Your task to perform on an android device: change the clock display to digital Image 0: 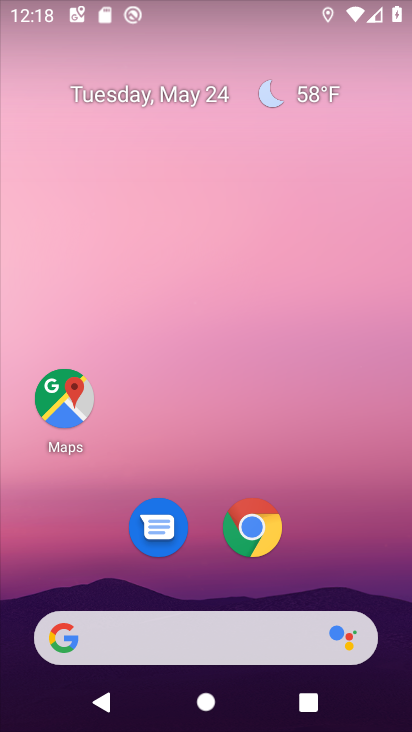
Step 0: drag from (396, 596) to (313, 121)
Your task to perform on an android device: change the clock display to digital Image 1: 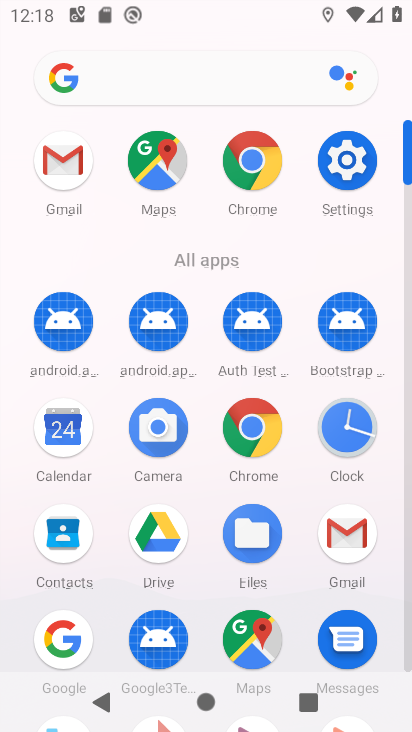
Step 1: click (363, 436)
Your task to perform on an android device: change the clock display to digital Image 2: 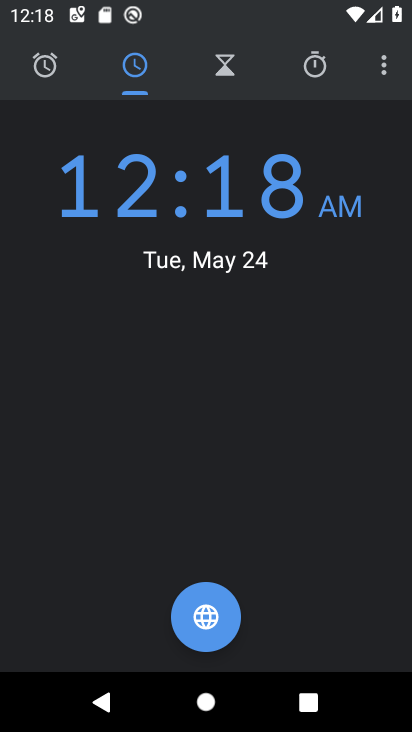
Step 2: click (388, 72)
Your task to perform on an android device: change the clock display to digital Image 3: 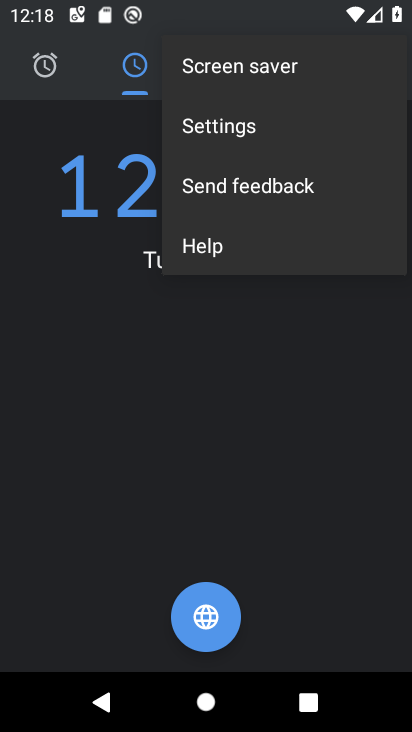
Step 3: click (312, 122)
Your task to perform on an android device: change the clock display to digital Image 4: 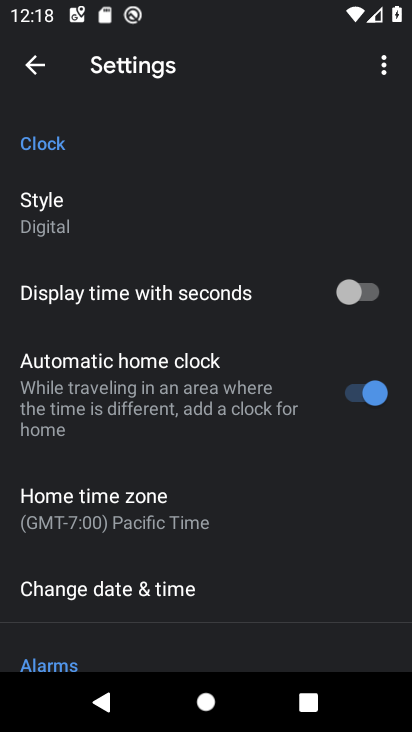
Step 4: click (232, 211)
Your task to perform on an android device: change the clock display to digital Image 5: 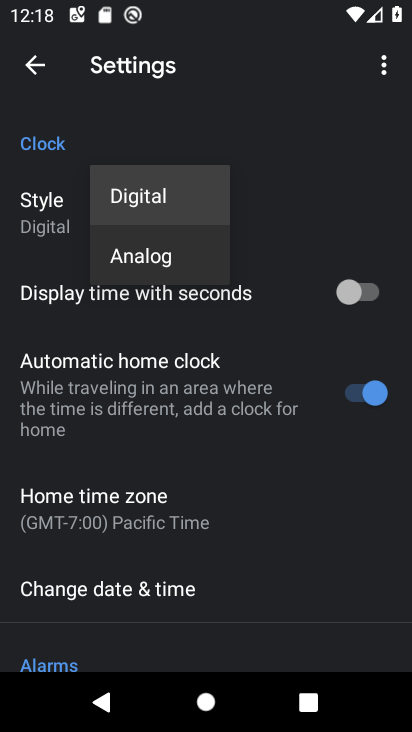
Step 5: task complete